Your task to perform on an android device: turn on location history Image 0: 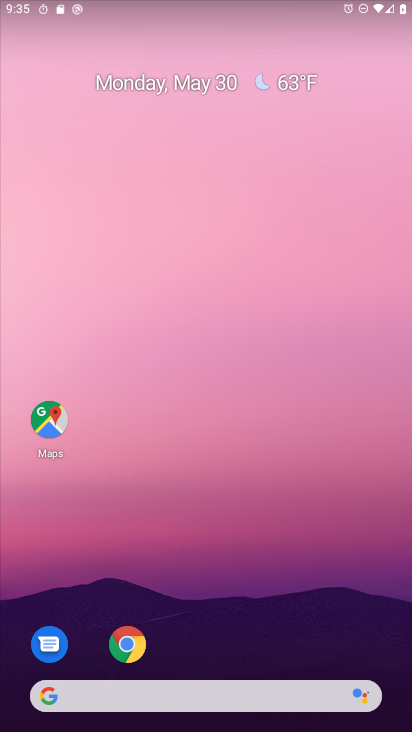
Step 0: drag from (201, 614) to (234, 9)
Your task to perform on an android device: turn on location history Image 1: 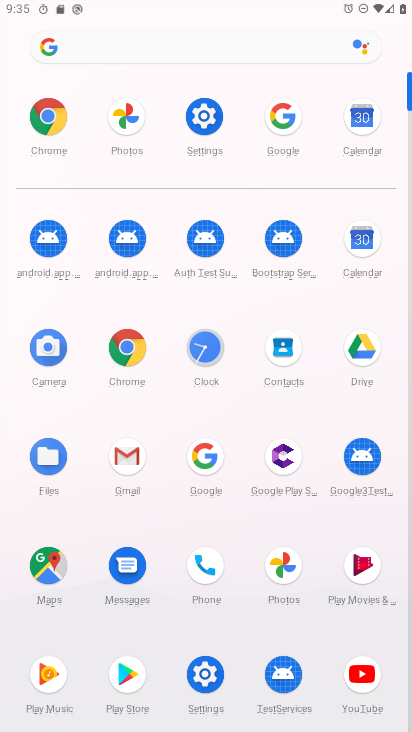
Step 1: click (205, 113)
Your task to perform on an android device: turn on location history Image 2: 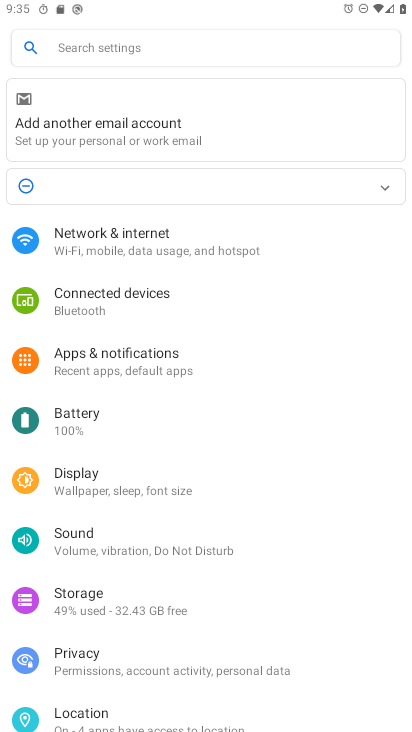
Step 2: click (82, 711)
Your task to perform on an android device: turn on location history Image 3: 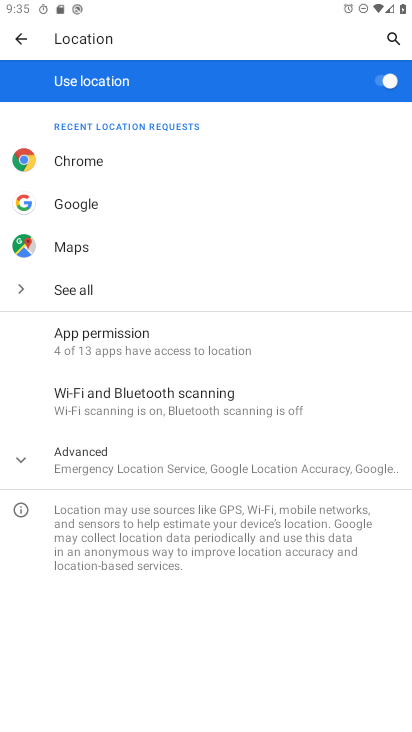
Step 3: click (102, 468)
Your task to perform on an android device: turn on location history Image 4: 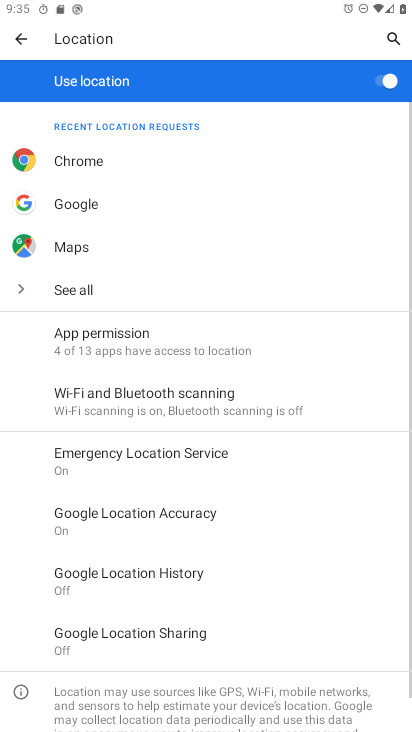
Step 4: click (150, 571)
Your task to perform on an android device: turn on location history Image 5: 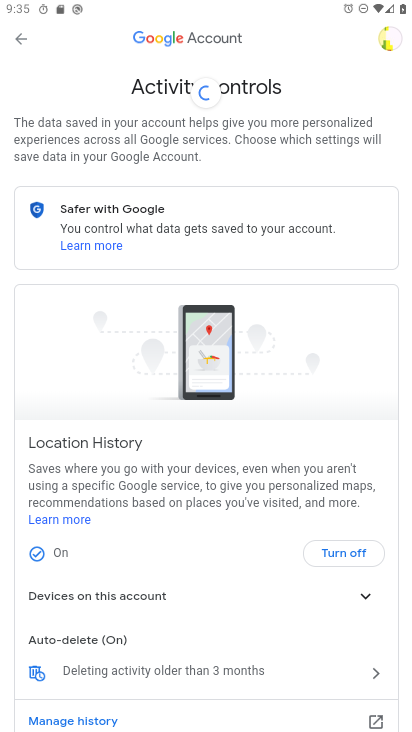
Step 5: task complete